Your task to perform on an android device: Open Amazon Image 0: 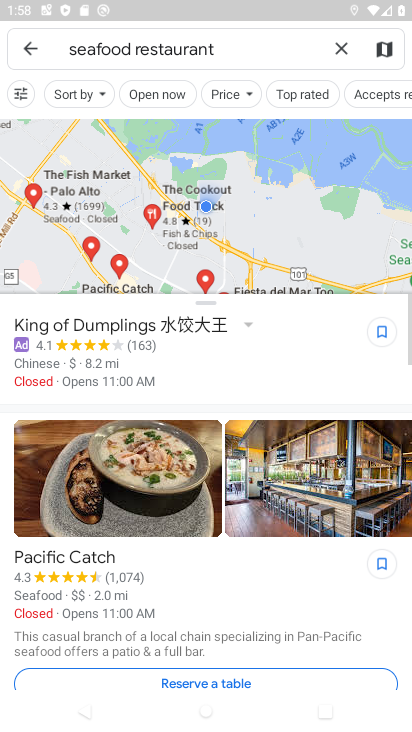
Step 0: press home button
Your task to perform on an android device: Open Amazon Image 1: 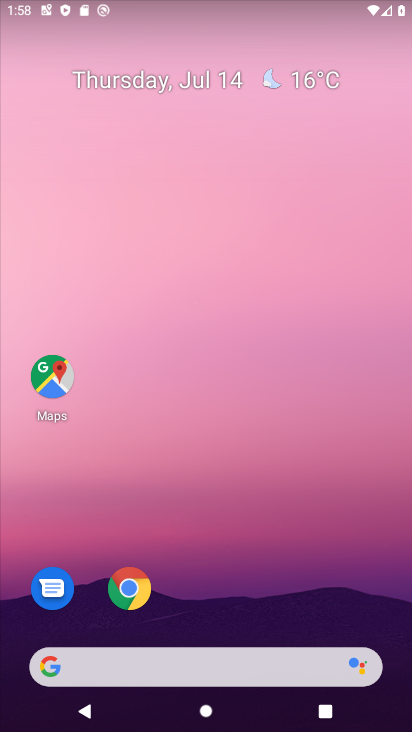
Step 1: click (119, 582)
Your task to perform on an android device: Open Amazon Image 2: 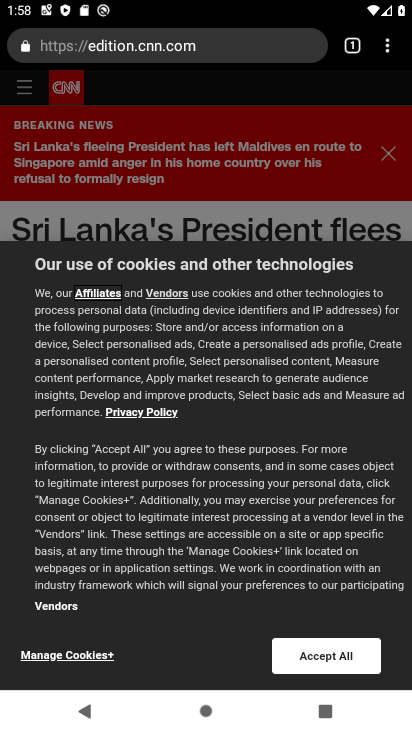
Step 2: click (199, 35)
Your task to perform on an android device: Open Amazon Image 3: 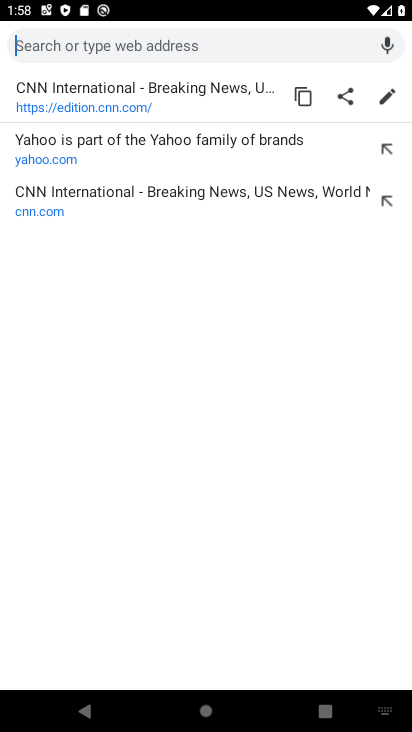
Step 3: type "amazon"
Your task to perform on an android device: Open Amazon Image 4: 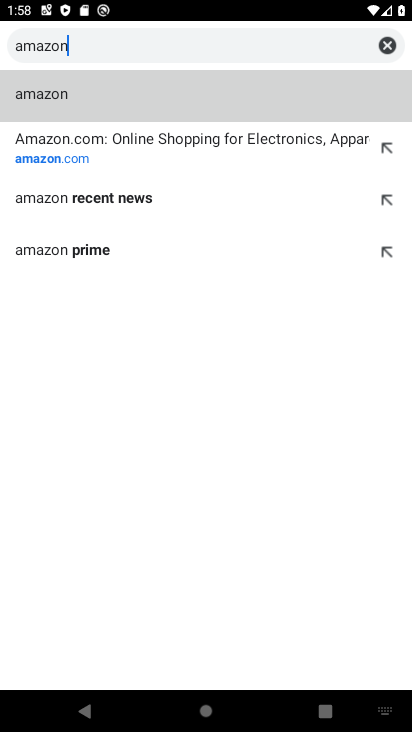
Step 4: click (139, 91)
Your task to perform on an android device: Open Amazon Image 5: 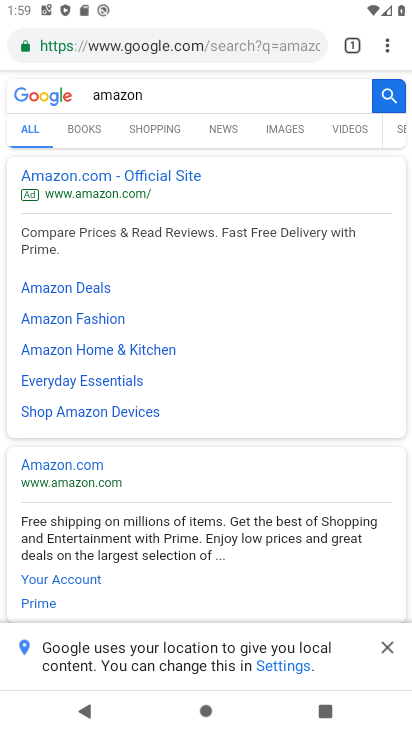
Step 5: click (54, 174)
Your task to perform on an android device: Open Amazon Image 6: 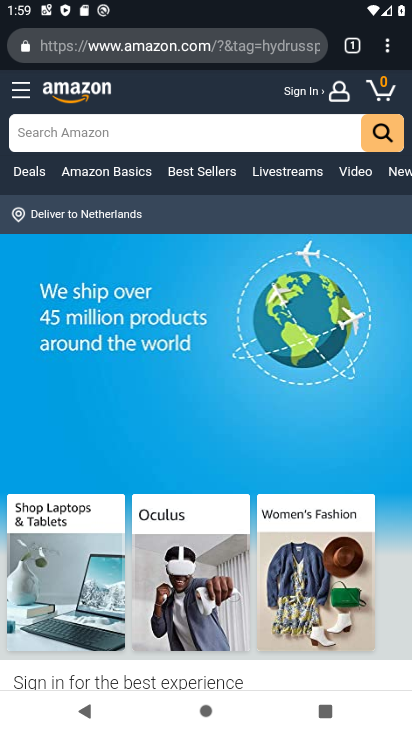
Step 6: task complete